Your task to perform on an android device: Search for a new bronzer Image 0: 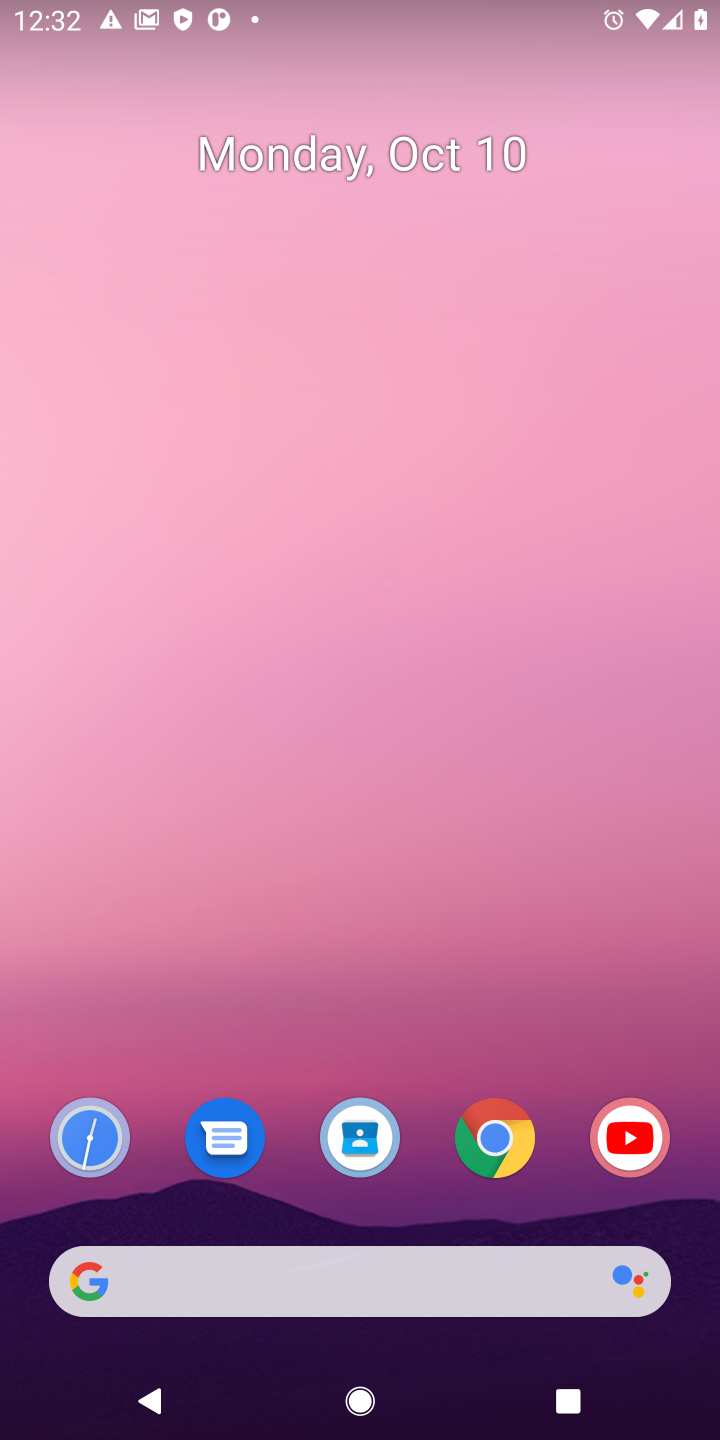
Step 0: click (494, 1139)
Your task to perform on an android device: Search for a new bronzer Image 1: 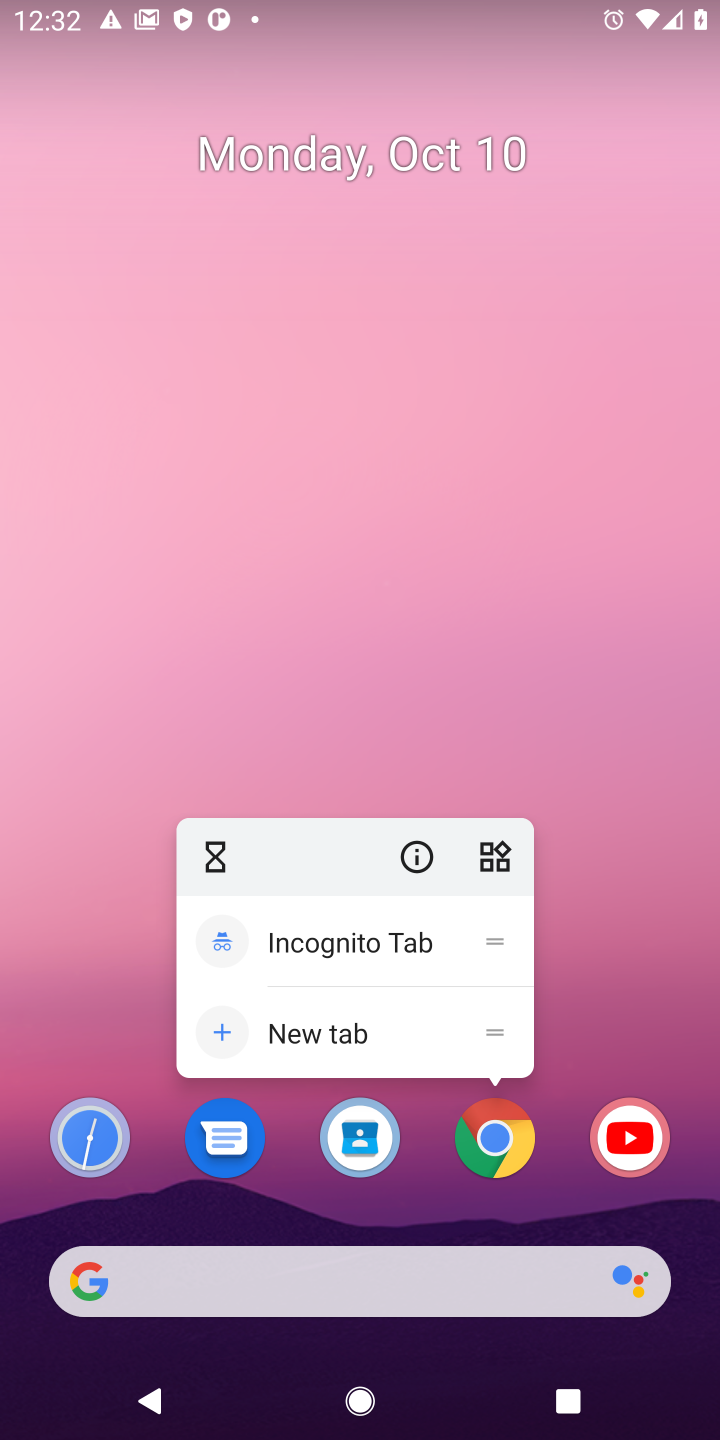
Step 1: click (494, 1139)
Your task to perform on an android device: Search for a new bronzer Image 2: 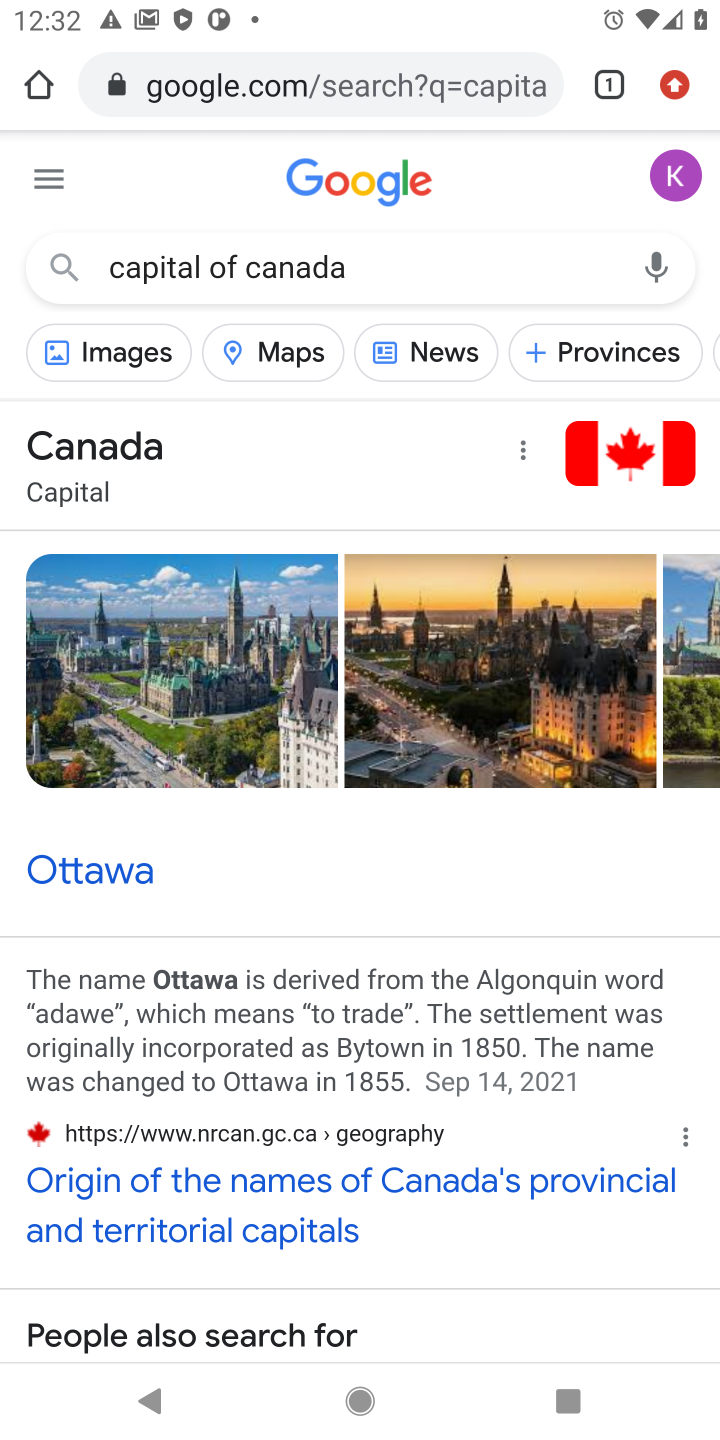
Step 2: click (393, 274)
Your task to perform on an android device: Search for a new bronzer Image 3: 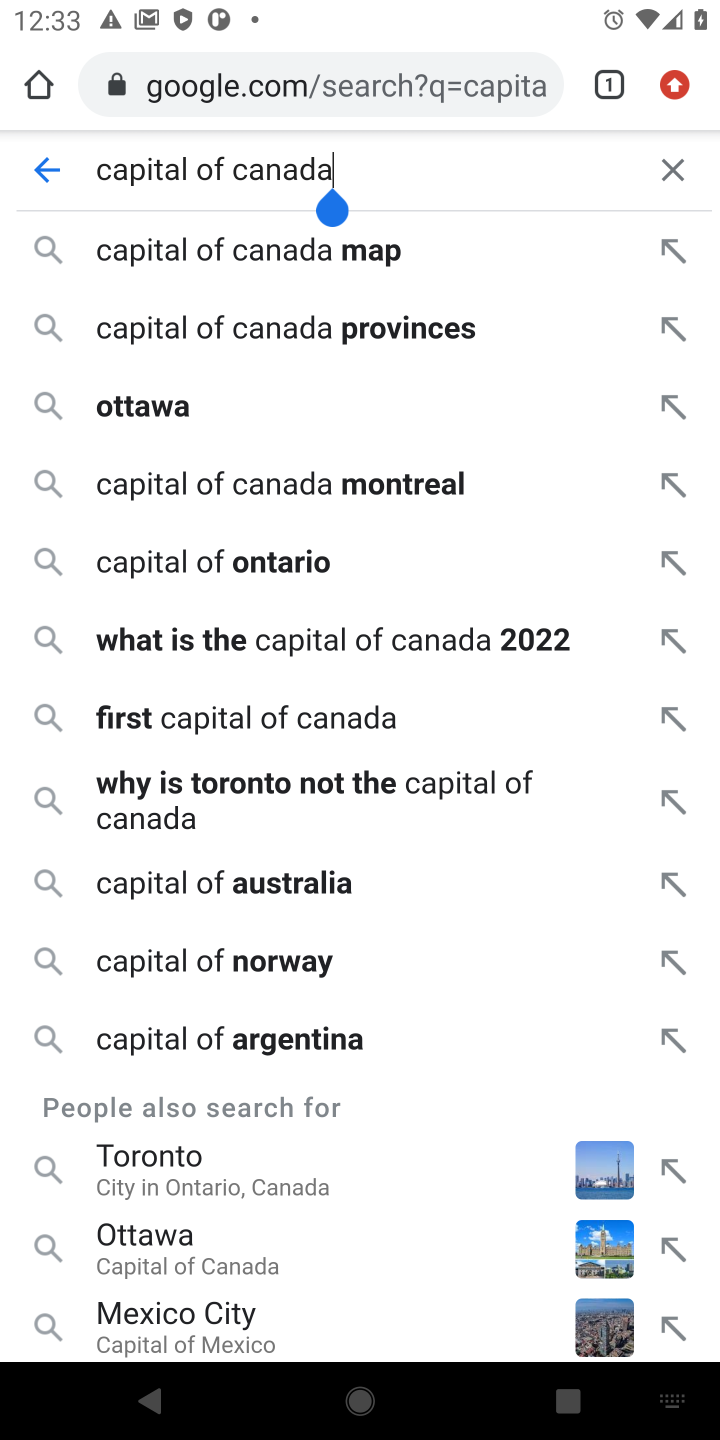
Step 3: click (677, 156)
Your task to perform on an android device: Search for a new bronzer Image 4: 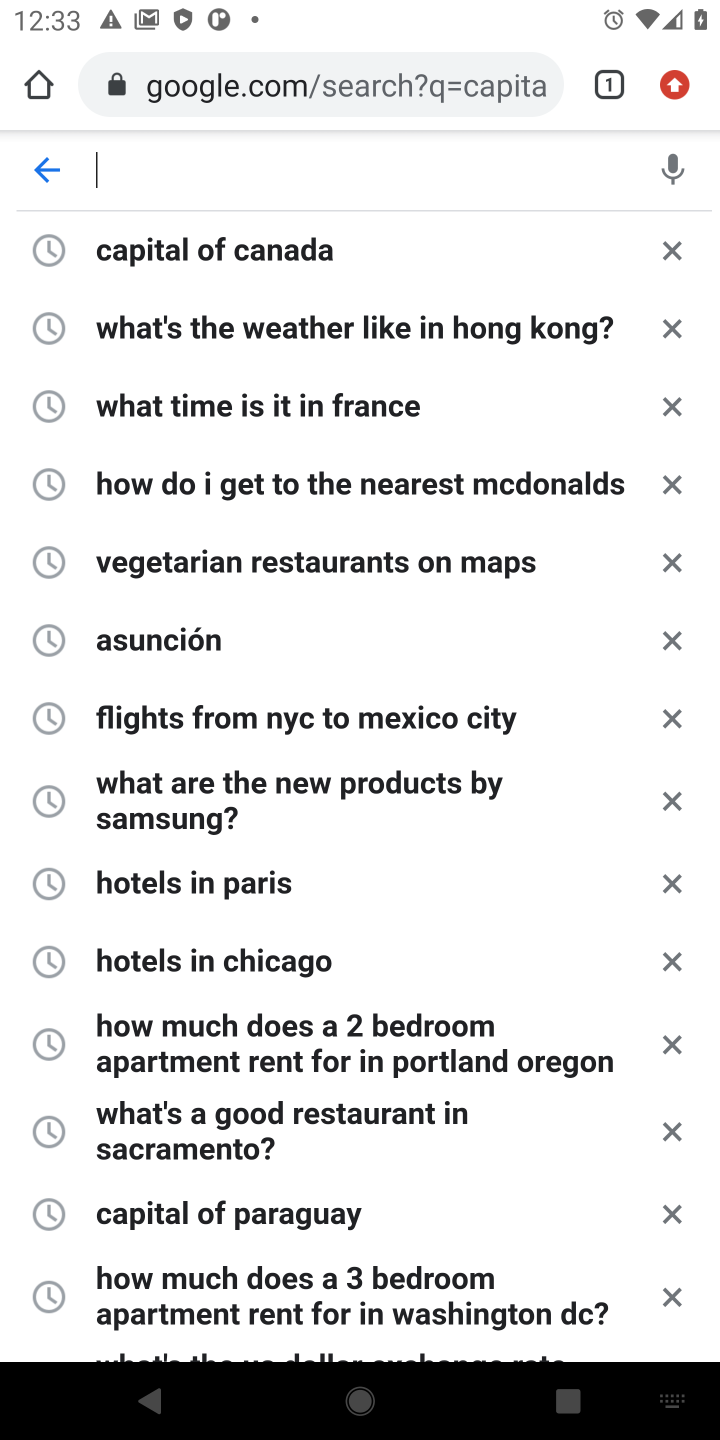
Step 4: type "new bronzer"
Your task to perform on an android device: Search for a new bronzer Image 5: 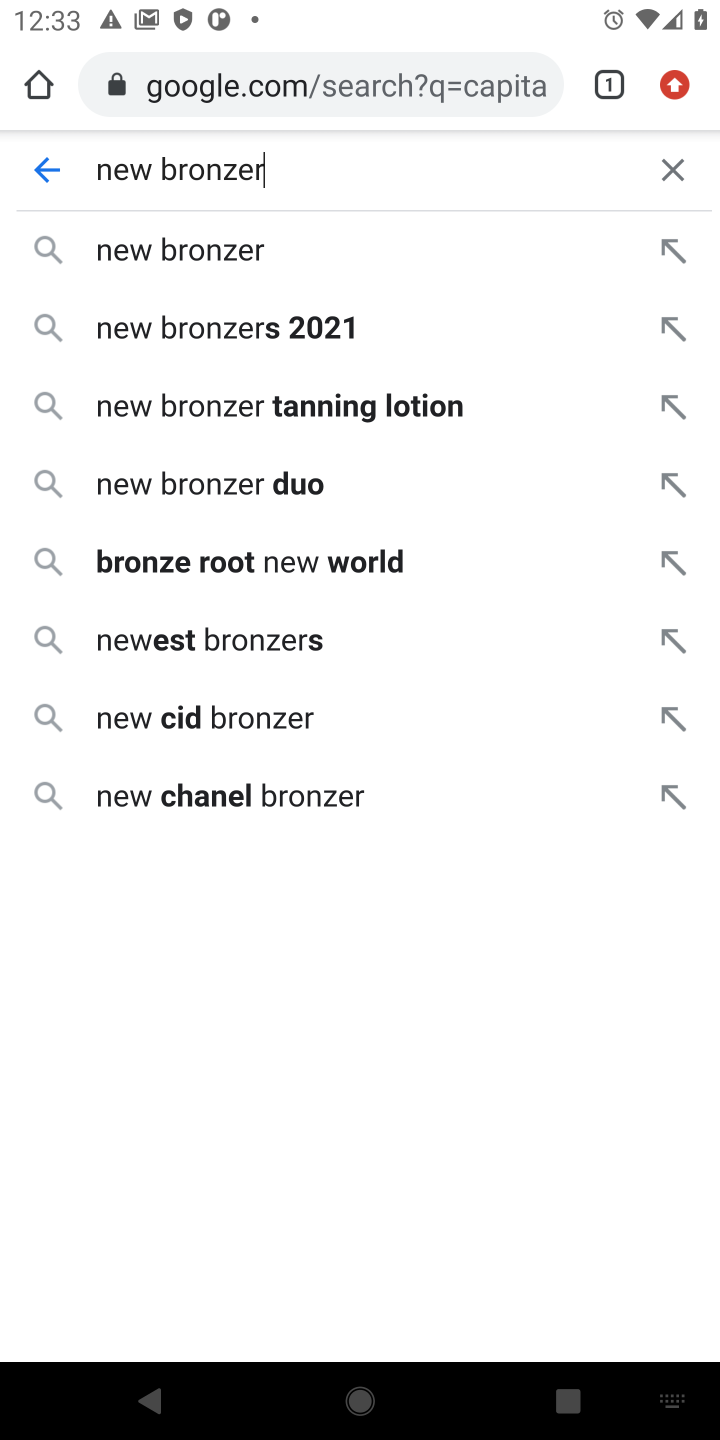
Step 5: press enter
Your task to perform on an android device: Search for a new bronzer Image 6: 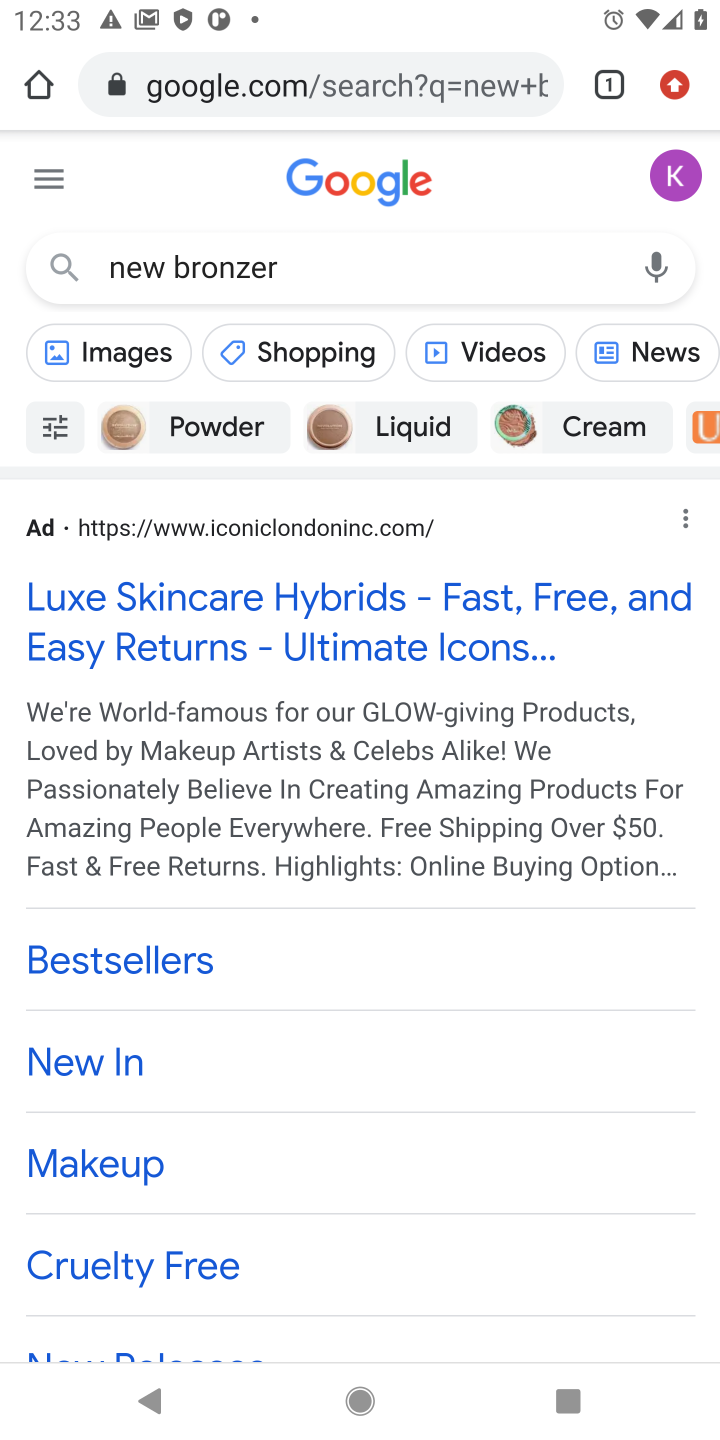
Step 6: task complete